Your task to perform on an android device: turn on location history Image 0: 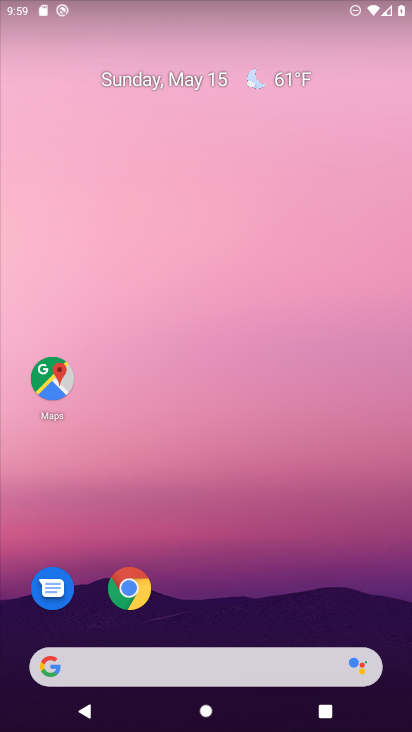
Step 0: drag from (211, 606) to (297, 0)
Your task to perform on an android device: turn on location history Image 1: 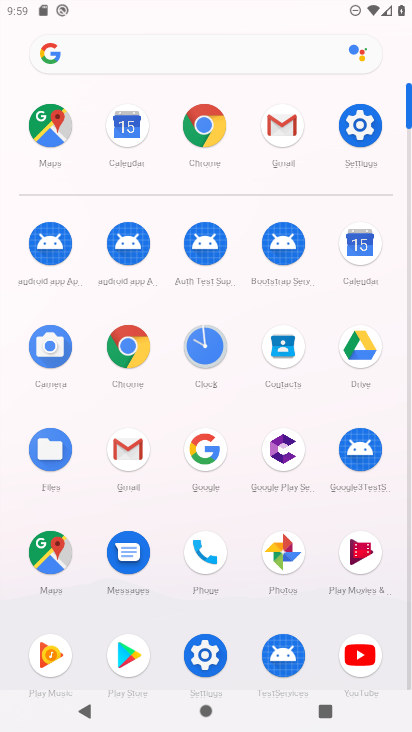
Step 1: click (213, 663)
Your task to perform on an android device: turn on location history Image 2: 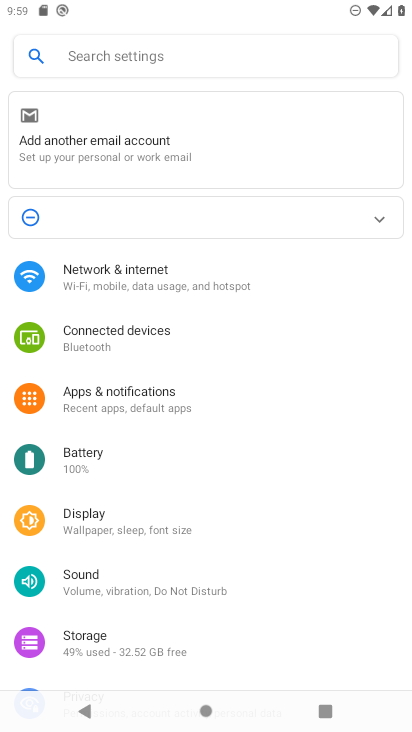
Step 2: drag from (116, 553) to (173, 179)
Your task to perform on an android device: turn on location history Image 3: 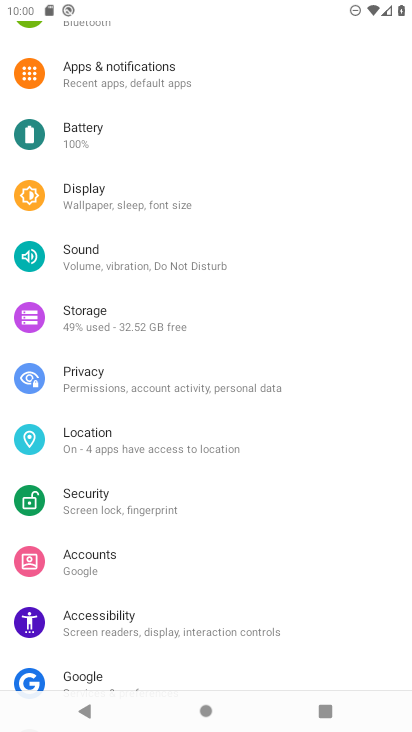
Step 3: click (111, 453)
Your task to perform on an android device: turn on location history Image 4: 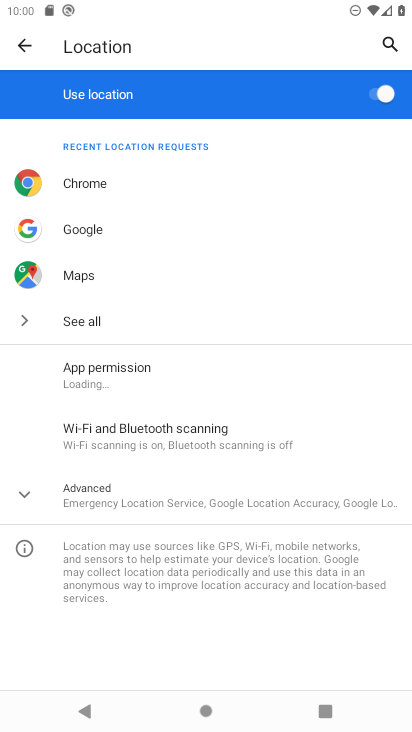
Step 4: click (182, 494)
Your task to perform on an android device: turn on location history Image 5: 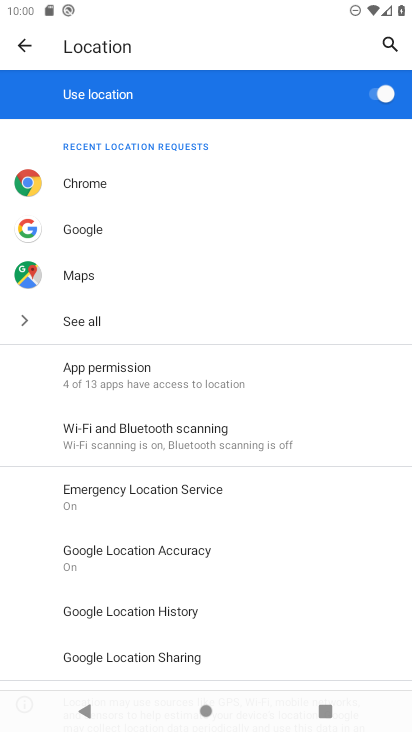
Step 5: click (177, 606)
Your task to perform on an android device: turn on location history Image 6: 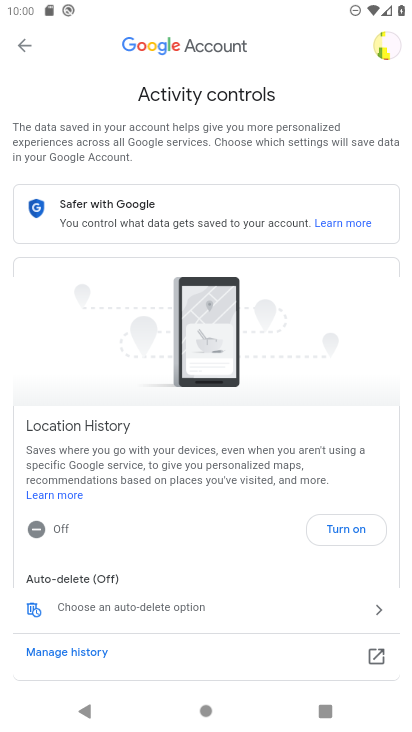
Step 6: task complete